Your task to perform on an android device: What's the weather? Image 0: 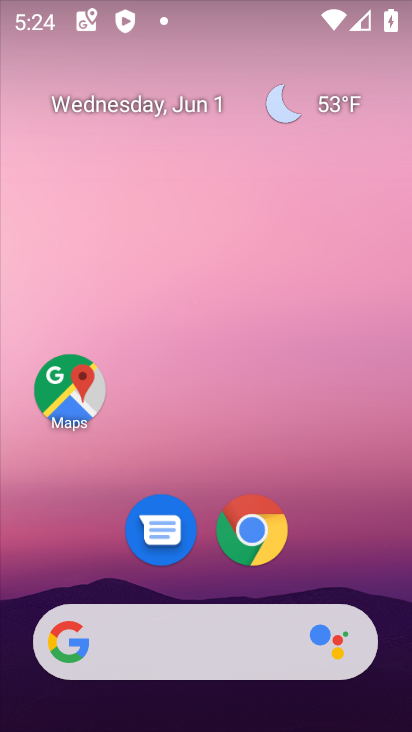
Step 0: click (221, 645)
Your task to perform on an android device: What's the weather? Image 1: 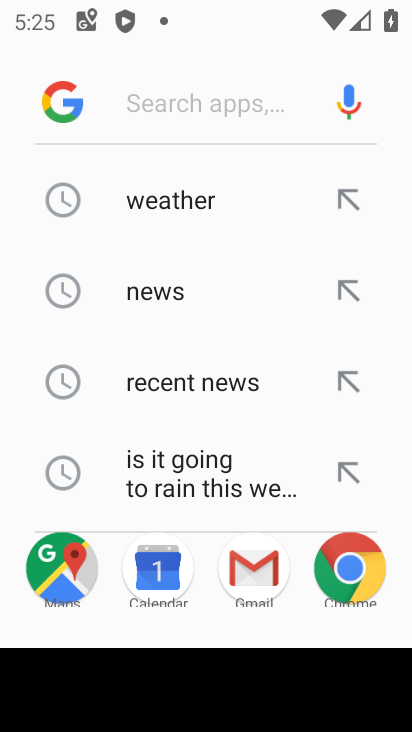
Step 1: click (176, 200)
Your task to perform on an android device: What's the weather? Image 2: 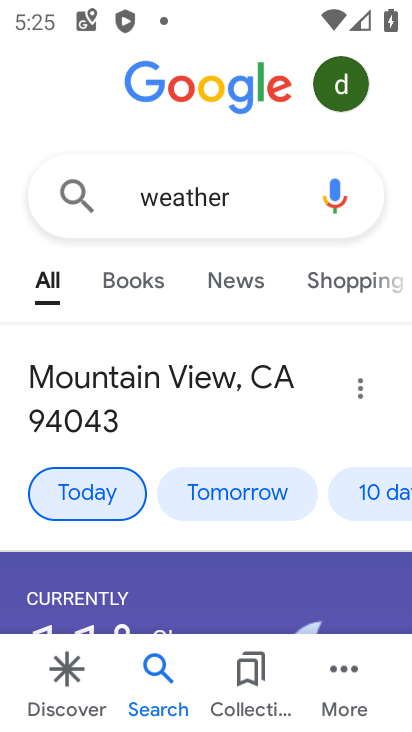
Step 2: task complete